Your task to perform on an android device: Open the web browser Image 0: 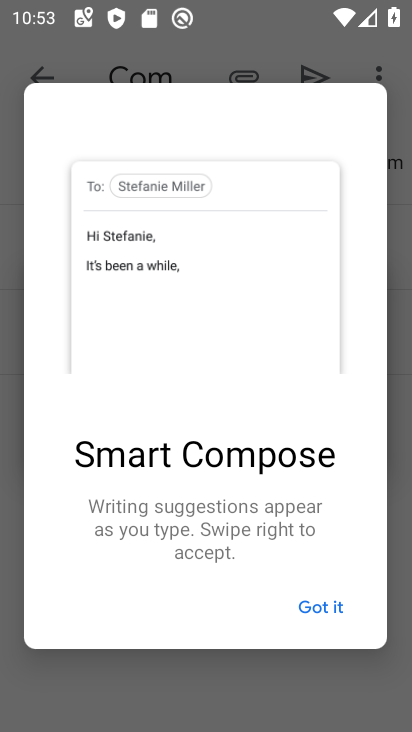
Step 0: press home button
Your task to perform on an android device: Open the web browser Image 1: 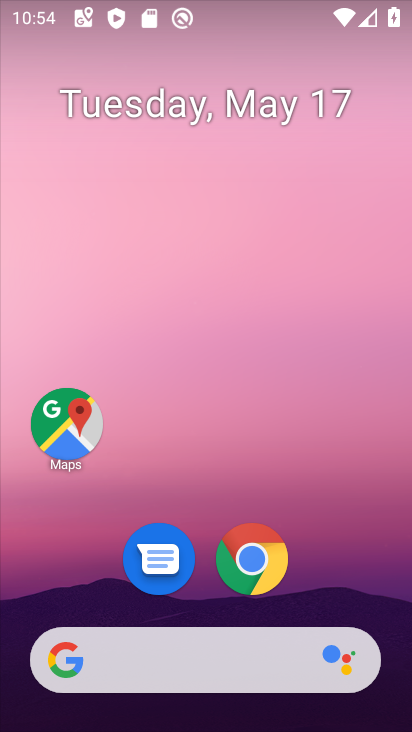
Step 1: click (253, 575)
Your task to perform on an android device: Open the web browser Image 2: 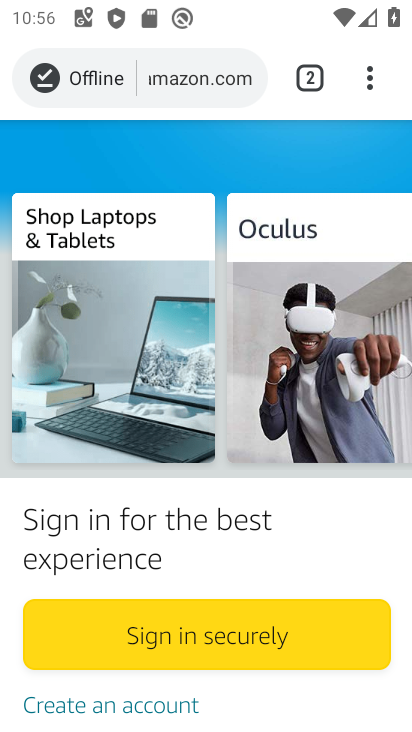
Step 2: task complete